Your task to perform on an android device: Open location settings Image 0: 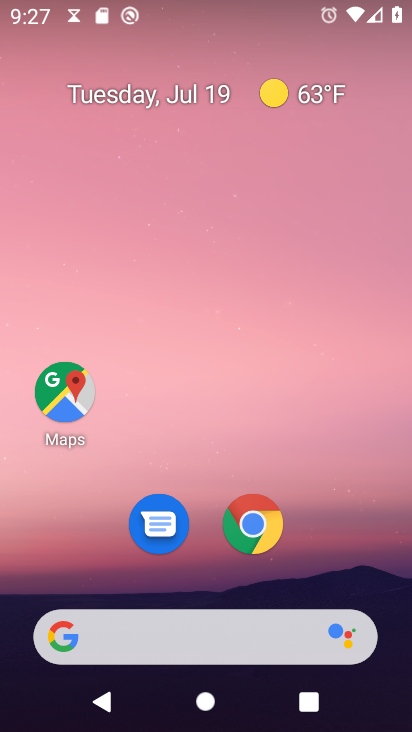
Step 0: drag from (209, 594) to (295, 233)
Your task to perform on an android device: Open location settings Image 1: 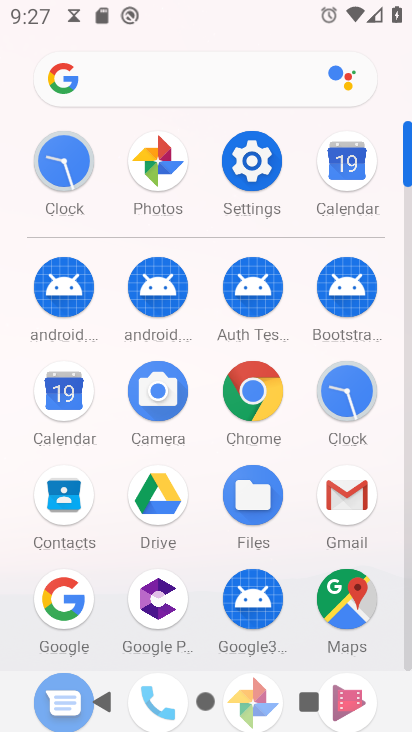
Step 1: click (242, 158)
Your task to perform on an android device: Open location settings Image 2: 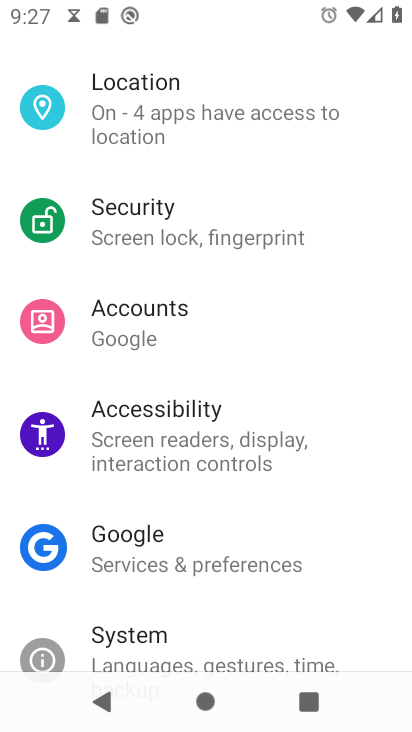
Step 2: click (137, 86)
Your task to perform on an android device: Open location settings Image 3: 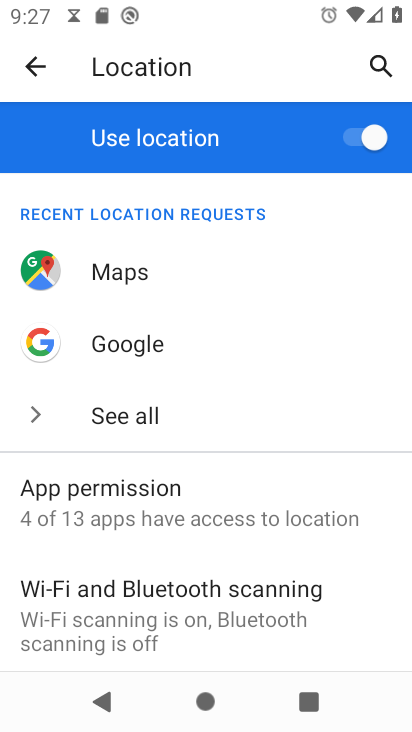
Step 3: task complete